Your task to perform on an android device: clear history in the chrome app Image 0: 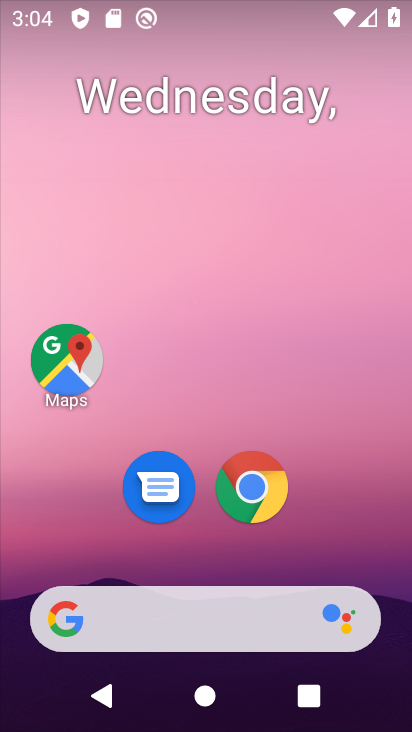
Step 0: drag from (370, 536) to (382, 155)
Your task to perform on an android device: clear history in the chrome app Image 1: 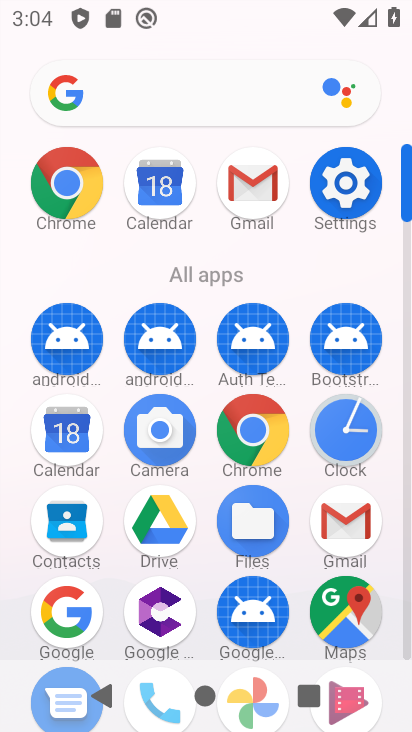
Step 1: click (242, 436)
Your task to perform on an android device: clear history in the chrome app Image 2: 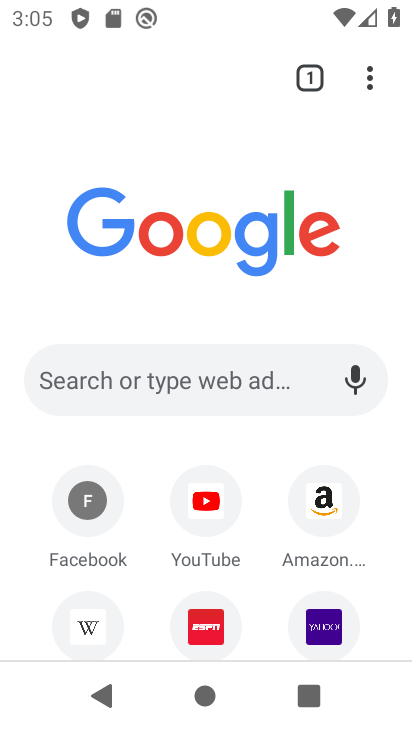
Step 2: click (368, 84)
Your task to perform on an android device: clear history in the chrome app Image 3: 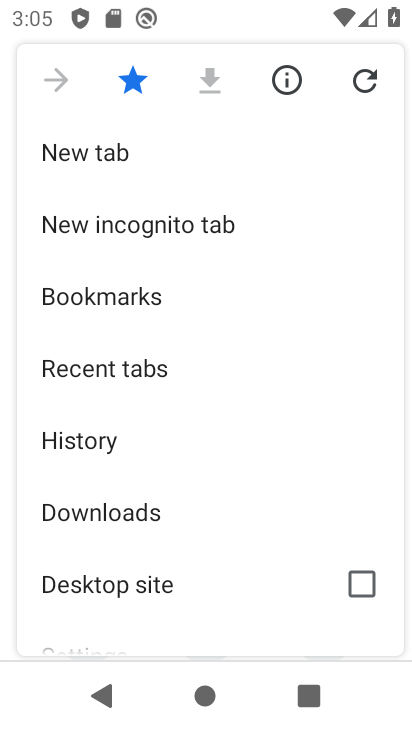
Step 3: drag from (263, 525) to (273, 330)
Your task to perform on an android device: clear history in the chrome app Image 4: 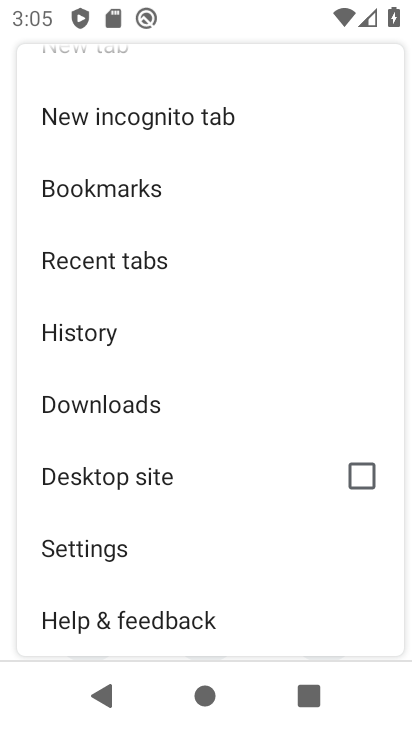
Step 4: drag from (230, 525) to (253, 389)
Your task to perform on an android device: clear history in the chrome app Image 5: 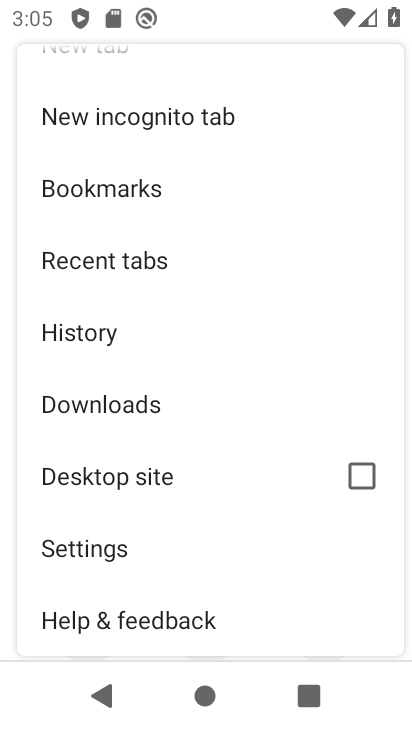
Step 5: drag from (247, 508) to (262, 395)
Your task to perform on an android device: clear history in the chrome app Image 6: 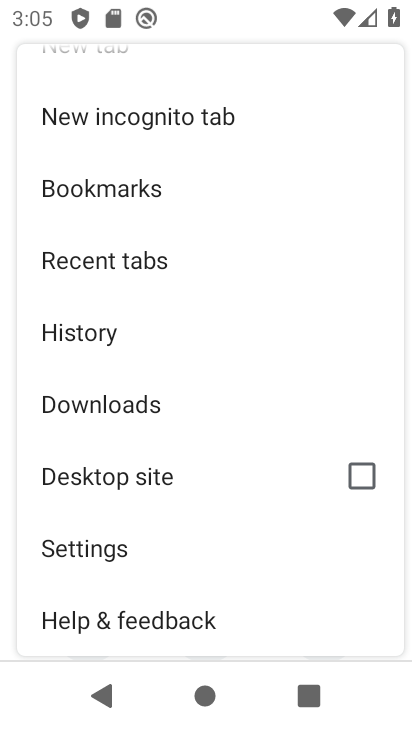
Step 6: click (93, 343)
Your task to perform on an android device: clear history in the chrome app Image 7: 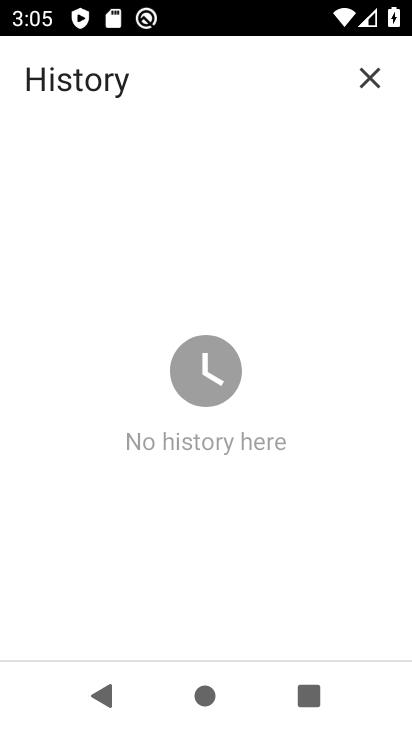
Step 7: task complete